Your task to perform on an android device: change notification settings in the gmail app Image 0: 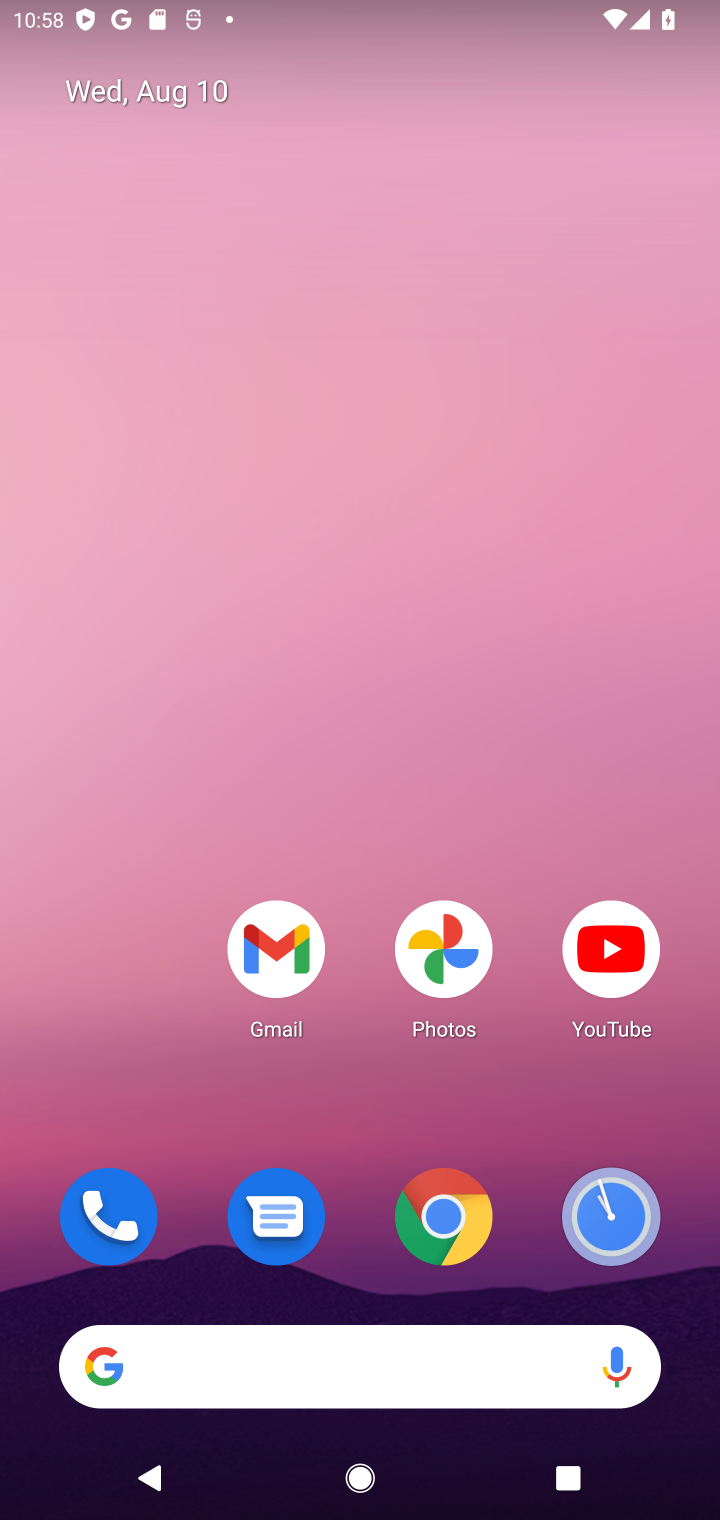
Step 0: drag from (69, 1134) to (590, 89)
Your task to perform on an android device: change notification settings in the gmail app Image 1: 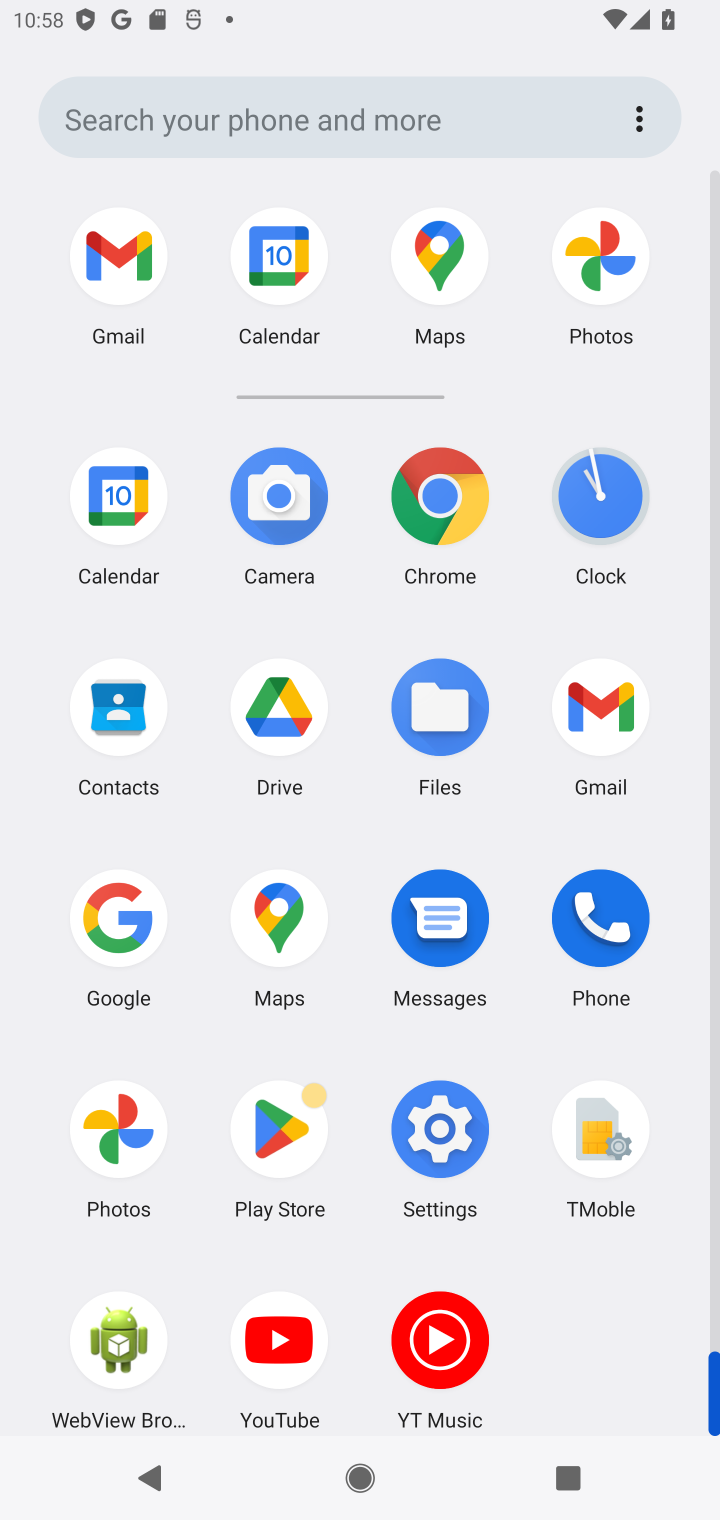
Step 1: click (402, 1146)
Your task to perform on an android device: change notification settings in the gmail app Image 2: 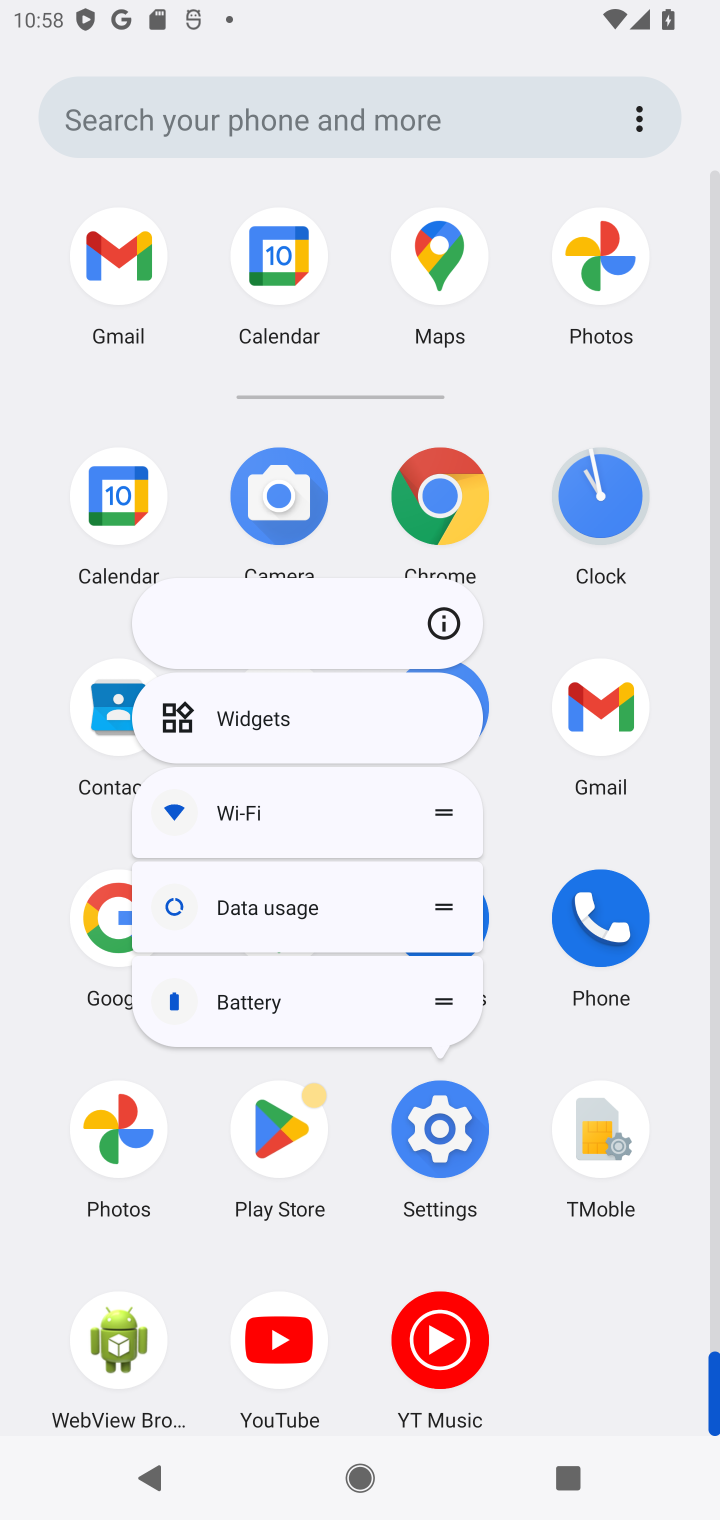
Step 2: click (441, 1114)
Your task to perform on an android device: change notification settings in the gmail app Image 3: 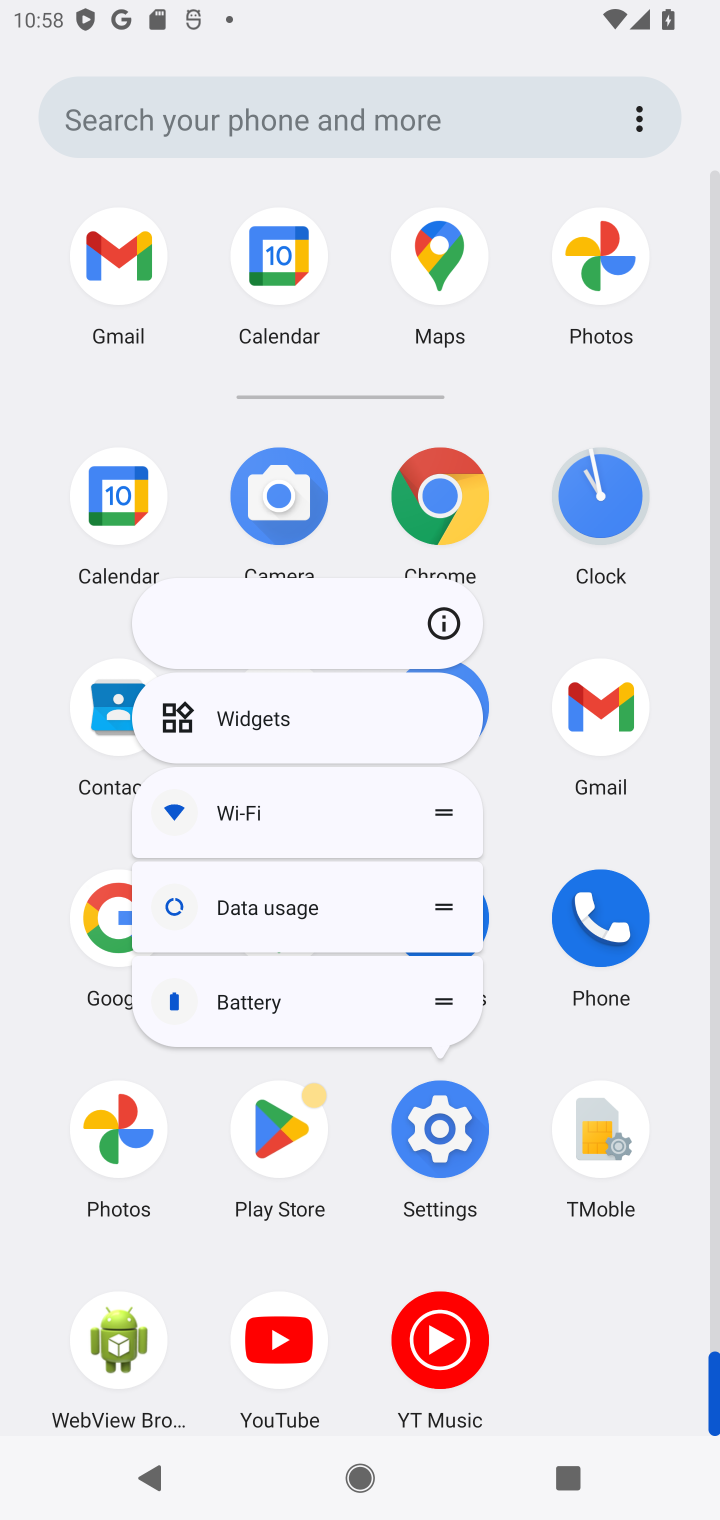
Step 3: task complete